Your task to perform on an android device: uninstall "Venmo" Image 0: 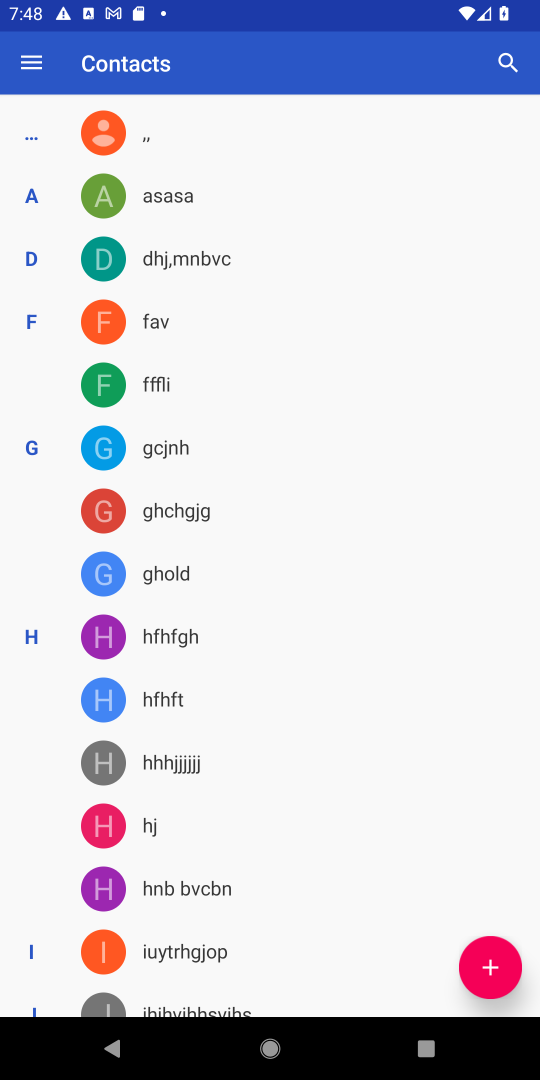
Step 0: press home button
Your task to perform on an android device: uninstall "Venmo" Image 1: 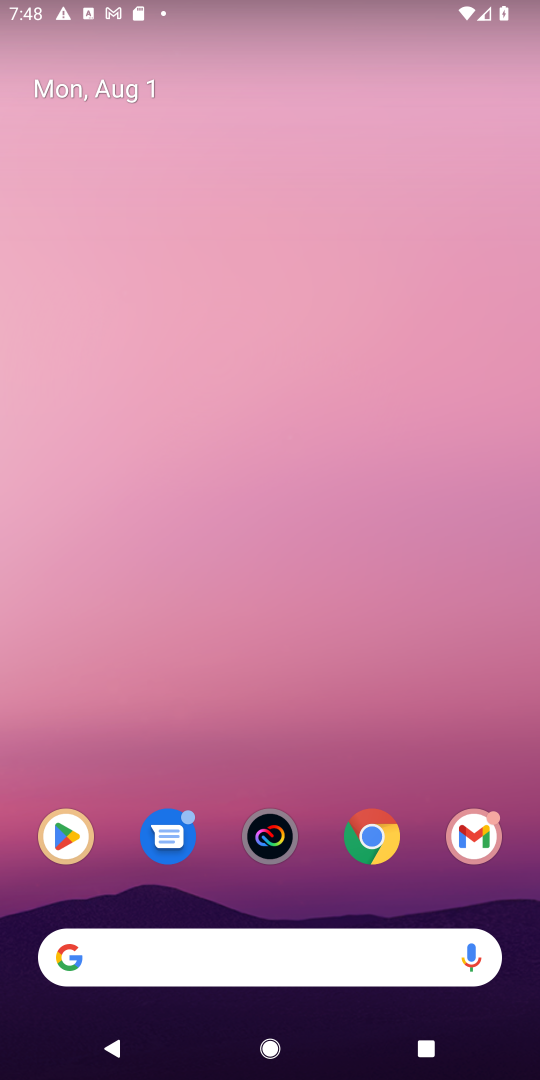
Step 1: click (68, 827)
Your task to perform on an android device: uninstall "Venmo" Image 2: 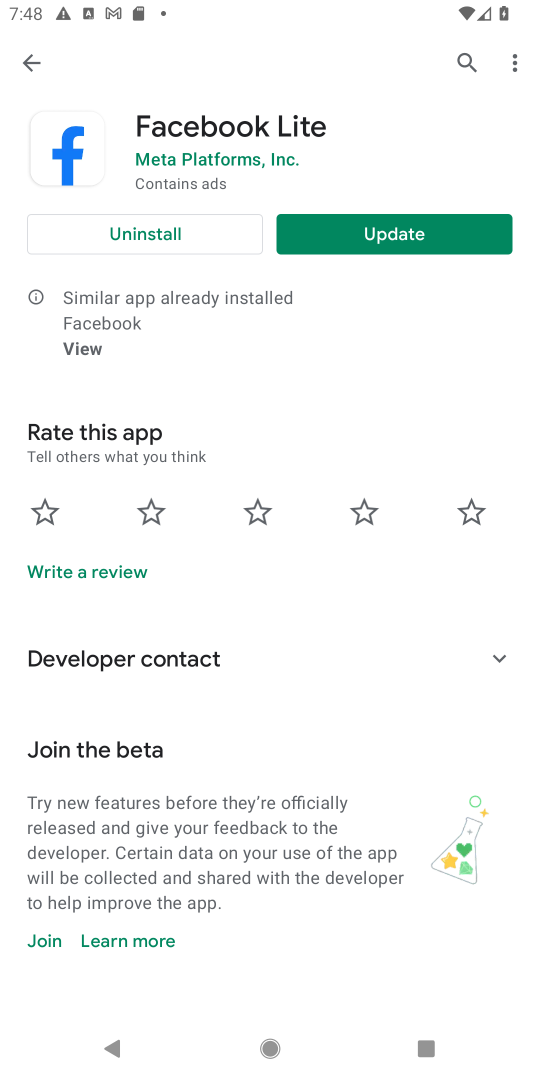
Step 2: click (460, 50)
Your task to perform on an android device: uninstall "Venmo" Image 3: 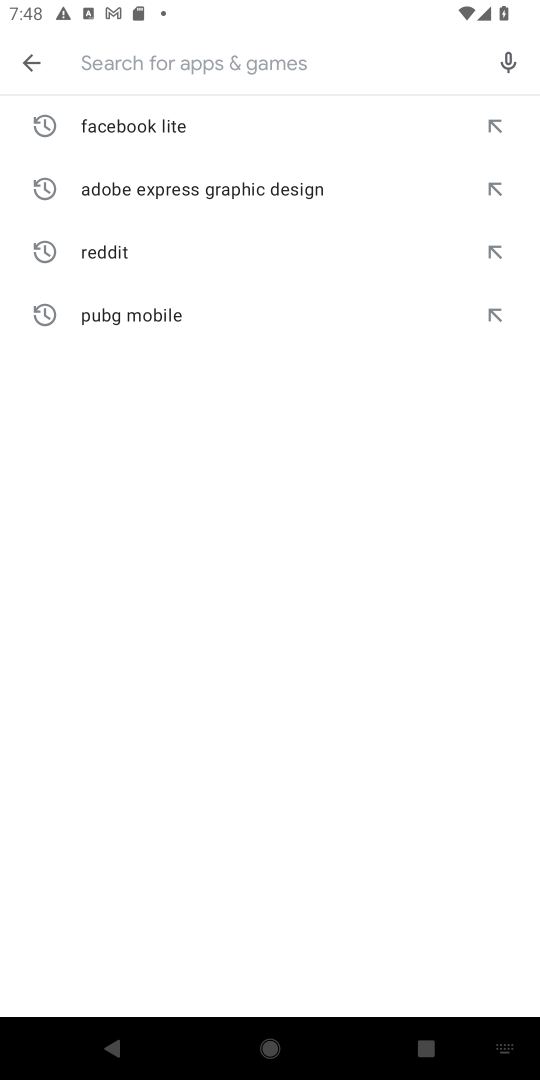
Step 3: type "Venmo"
Your task to perform on an android device: uninstall "Venmo" Image 4: 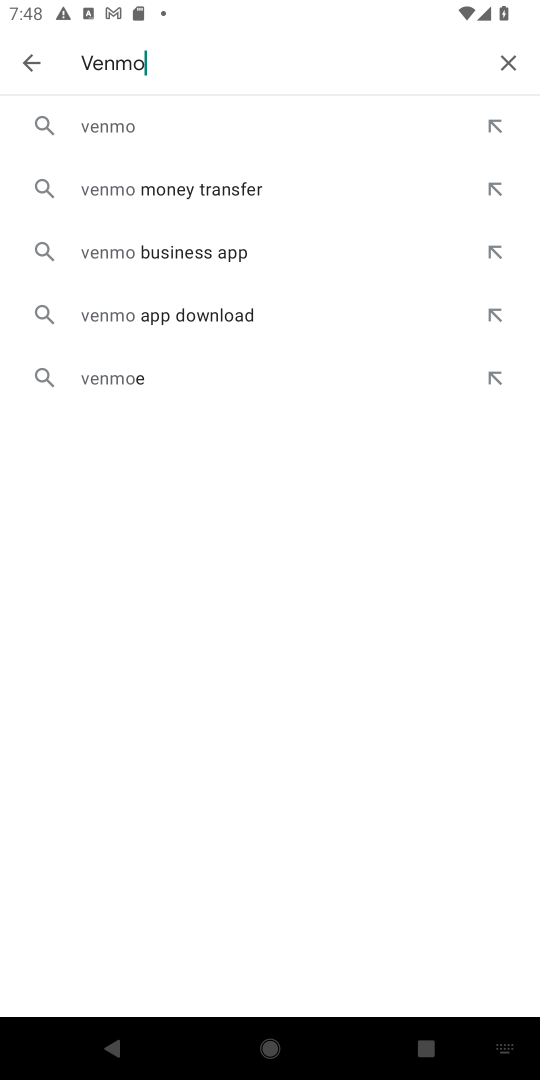
Step 4: click (120, 120)
Your task to perform on an android device: uninstall "Venmo" Image 5: 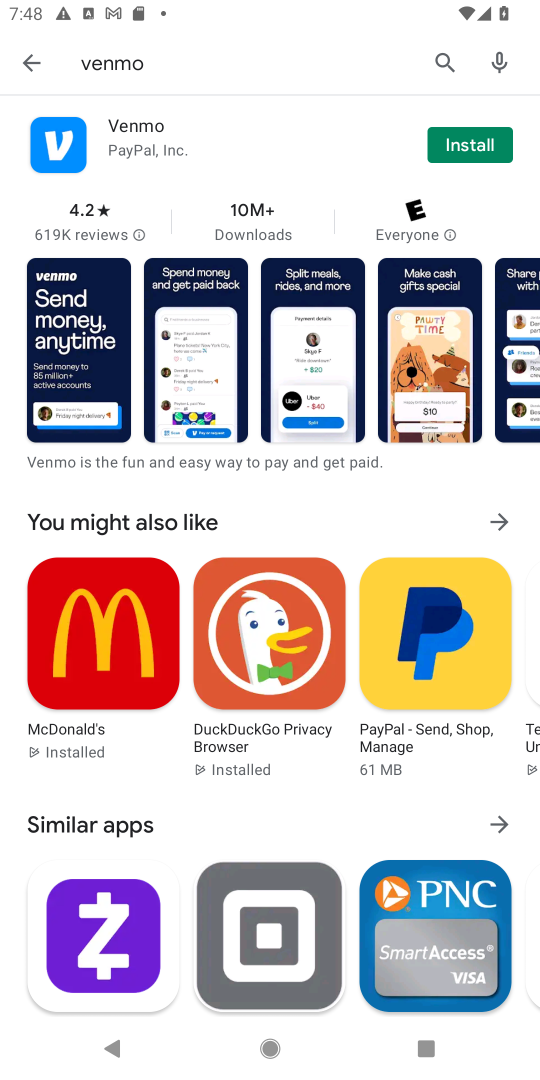
Step 5: task complete